Your task to perform on an android device: change keyboard looks Image 0: 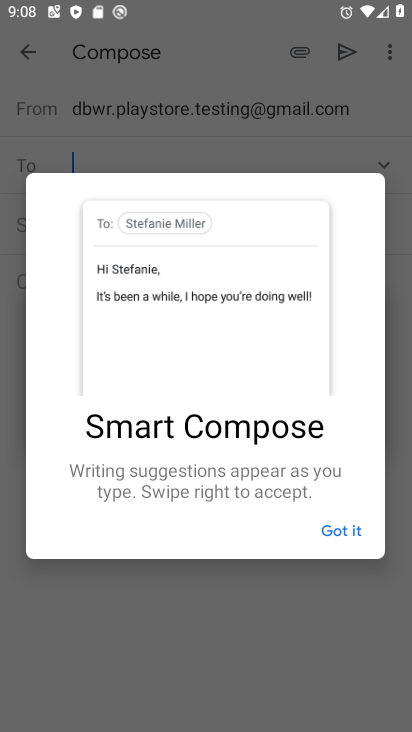
Step 0: press home button
Your task to perform on an android device: change keyboard looks Image 1: 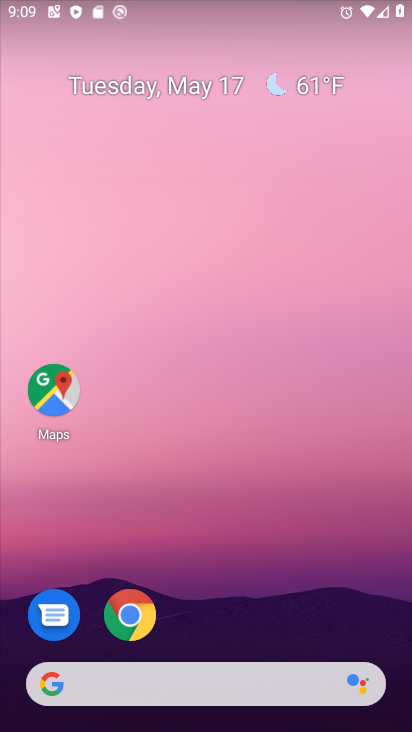
Step 1: drag from (282, 609) to (352, 73)
Your task to perform on an android device: change keyboard looks Image 2: 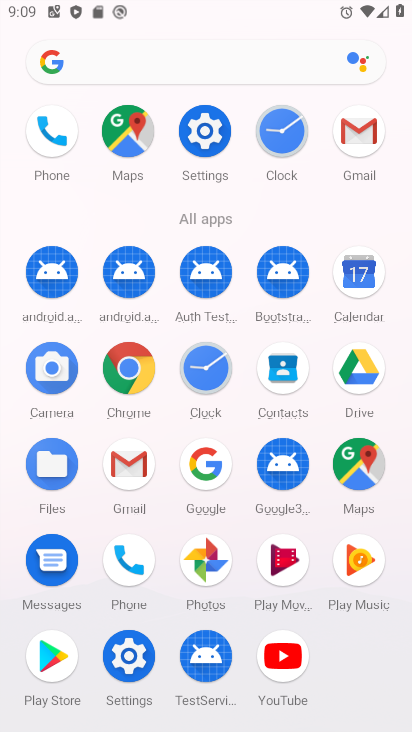
Step 2: click (124, 670)
Your task to perform on an android device: change keyboard looks Image 3: 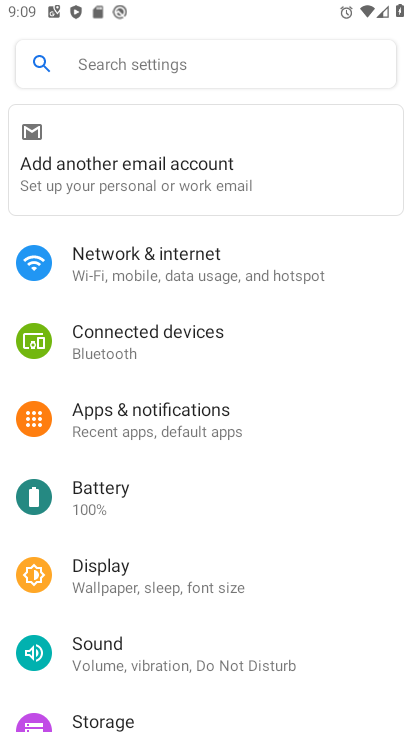
Step 3: drag from (277, 617) to (248, 241)
Your task to perform on an android device: change keyboard looks Image 4: 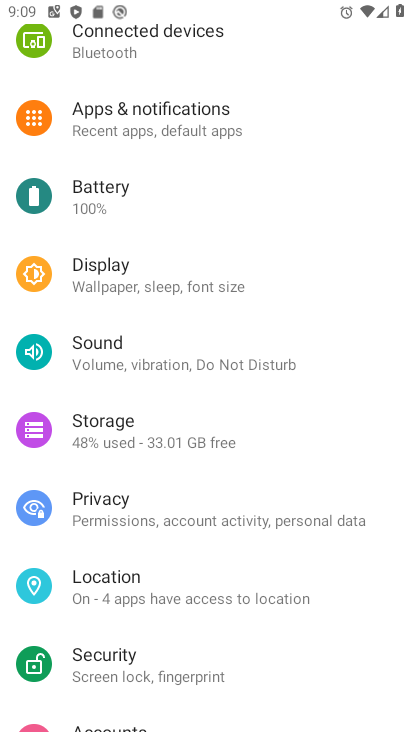
Step 4: drag from (241, 614) to (216, 355)
Your task to perform on an android device: change keyboard looks Image 5: 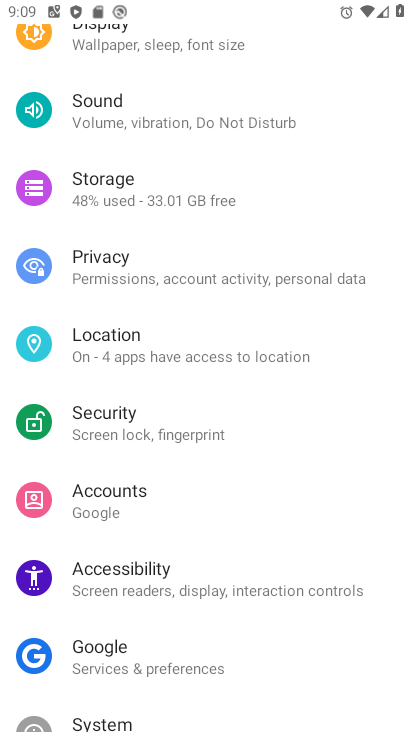
Step 5: drag from (186, 694) to (189, 381)
Your task to perform on an android device: change keyboard looks Image 6: 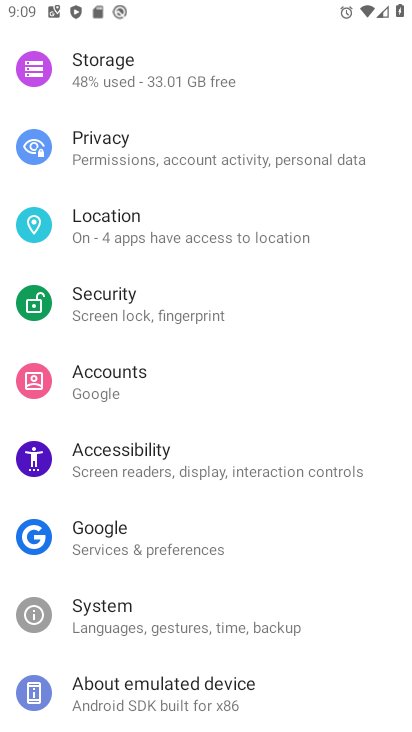
Step 6: click (195, 620)
Your task to perform on an android device: change keyboard looks Image 7: 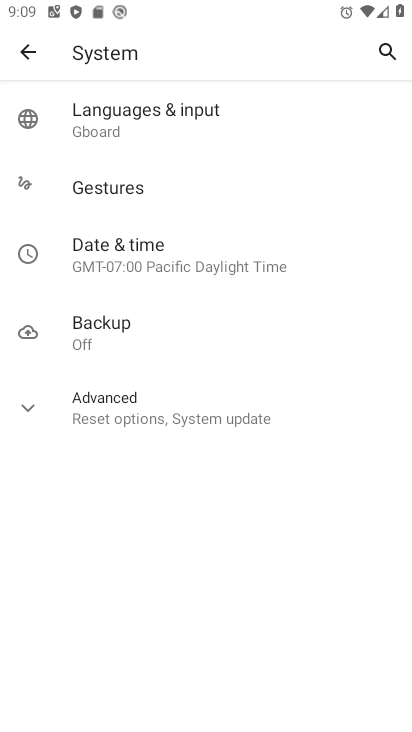
Step 7: click (146, 107)
Your task to perform on an android device: change keyboard looks Image 8: 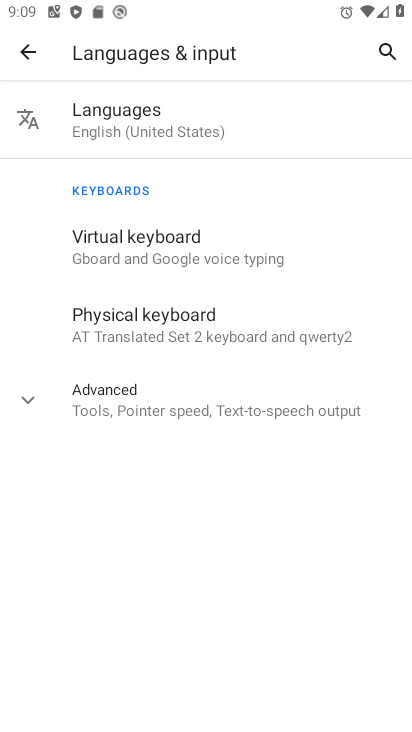
Step 8: click (180, 240)
Your task to perform on an android device: change keyboard looks Image 9: 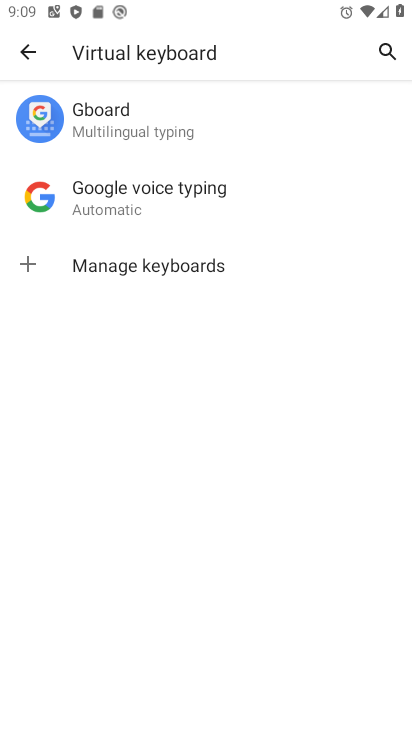
Step 9: click (117, 124)
Your task to perform on an android device: change keyboard looks Image 10: 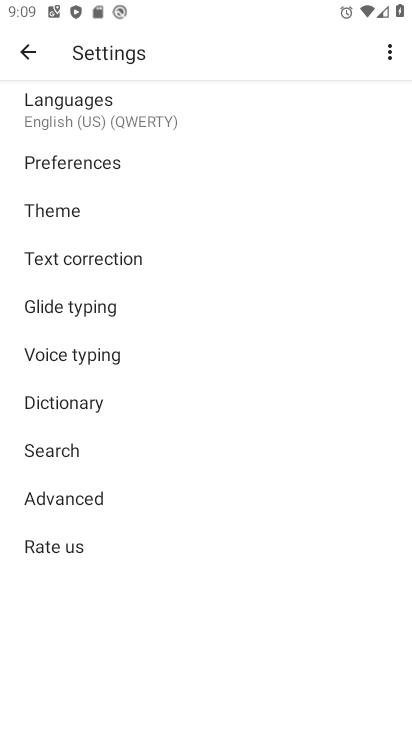
Step 10: click (99, 219)
Your task to perform on an android device: change keyboard looks Image 11: 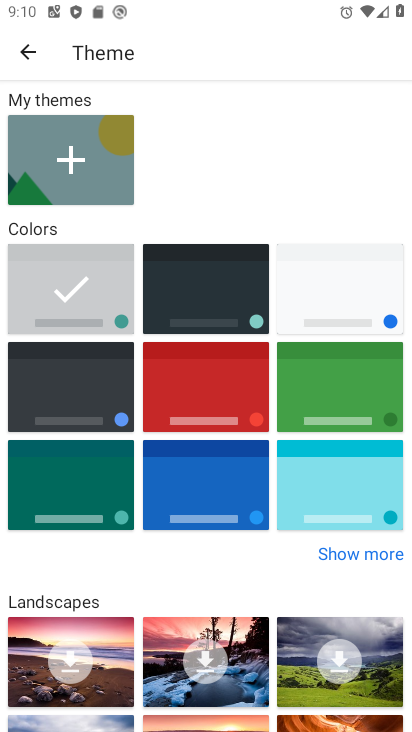
Step 11: click (246, 376)
Your task to perform on an android device: change keyboard looks Image 12: 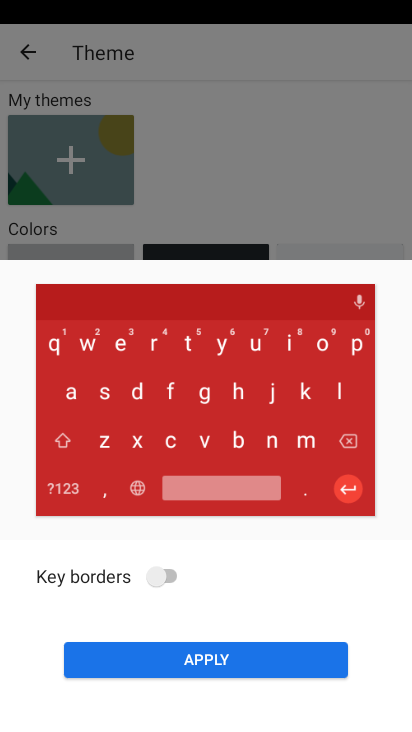
Step 12: click (158, 674)
Your task to perform on an android device: change keyboard looks Image 13: 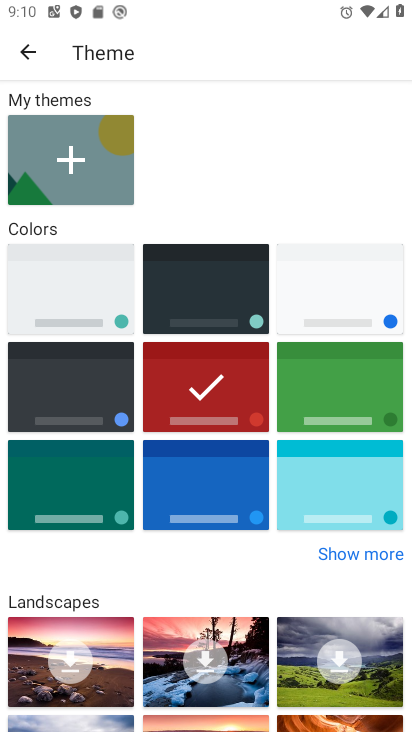
Step 13: task complete